Your task to perform on an android device: Turn off the flashlight Image 0: 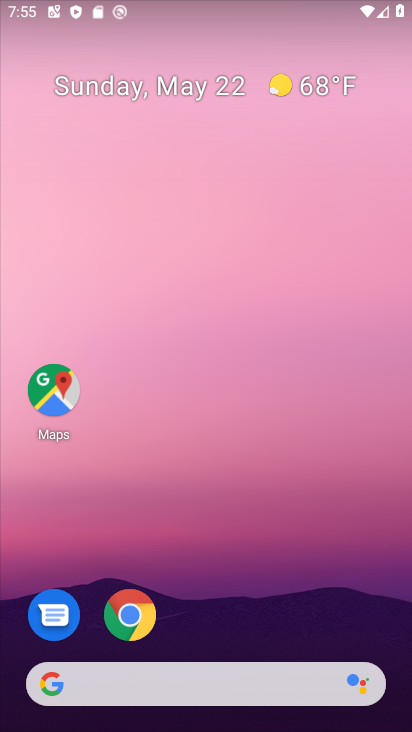
Step 0: drag from (182, 661) to (114, 308)
Your task to perform on an android device: Turn off the flashlight Image 1: 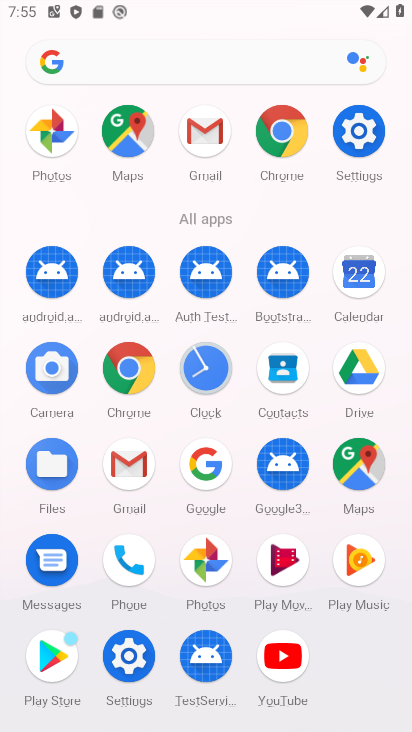
Step 1: click (131, 639)
Your task to perform on an android device: Turn off the flashlight Image 2: 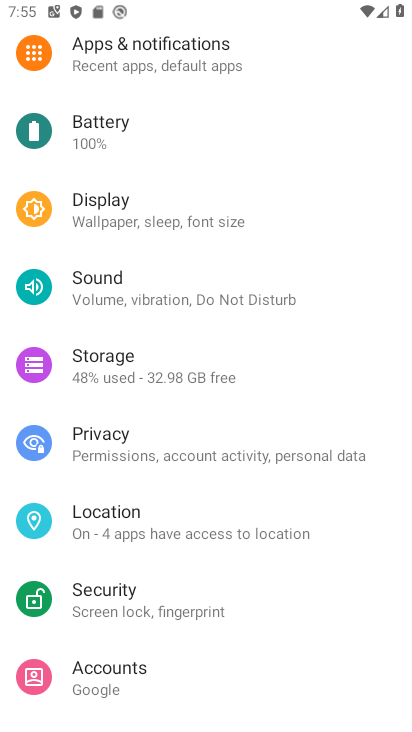
Step 2: task complete